Your task to perform on an android device: Open the calendar app, open the side menu, and click the "Day" option Image 0: 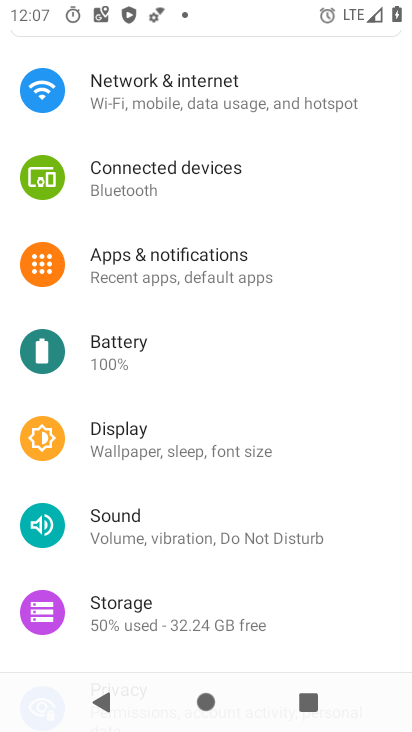
Step 0: press home button
Your task to perform on an android device: Open the calendar app, open the side menu, and click the "Day" option Image 1: 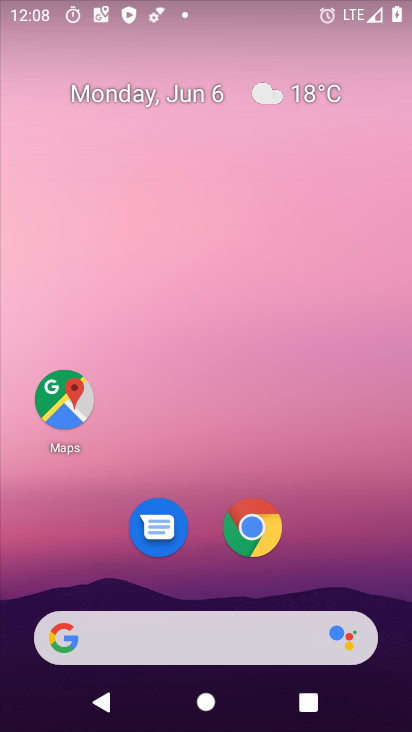
Step 1: click (173, 90)
Your task to perform on an android device: Open the calendar app, open the side menu, and click the "Day" option Image 2: 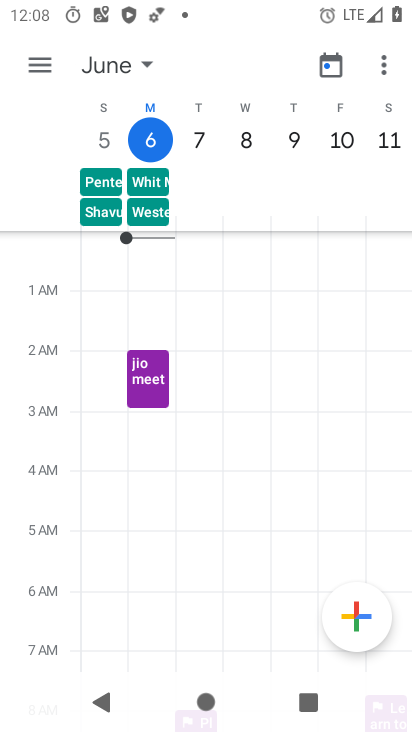
Step 2: click (42, 68)
Your task to perform on an android device: Open the calendar app, open the side menu, and click the "Day" option Image 3: 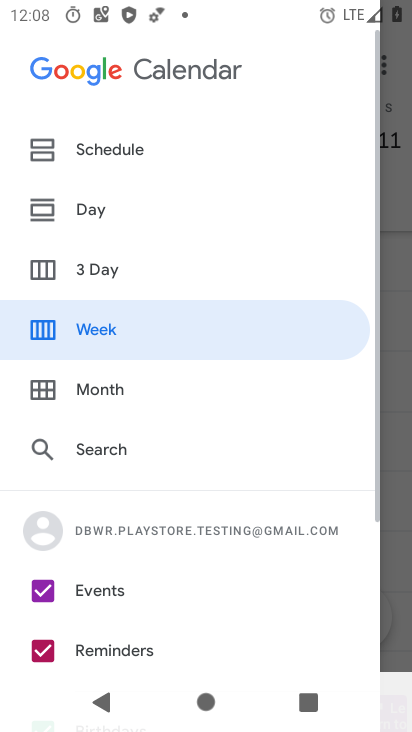
Step 3: click (95, 203)
Your task to perform on an android device: Open the calendar app, open the side menu, and click the "Day" option Image 4: 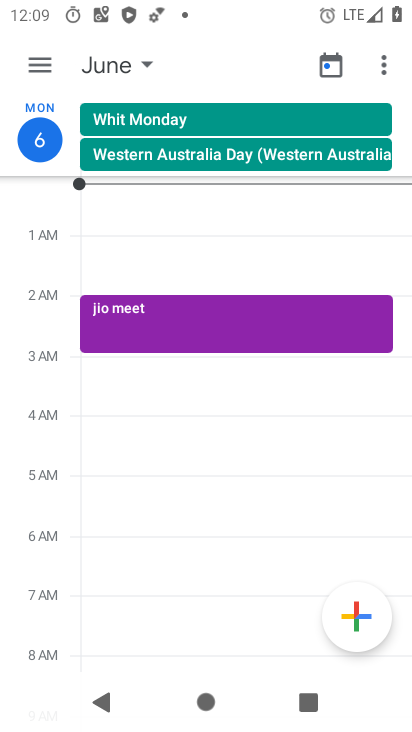
Step 4: task complete